Your task to perform on an android device: Open settings Image 0: 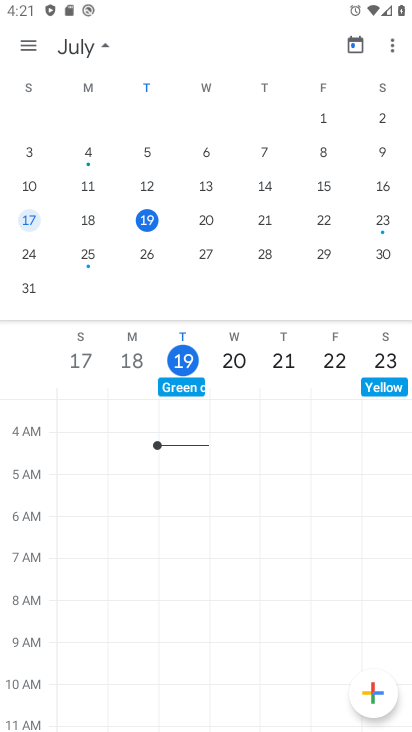
Step 0: press home button
Your task to perform on an android device: Open settings Image 1: 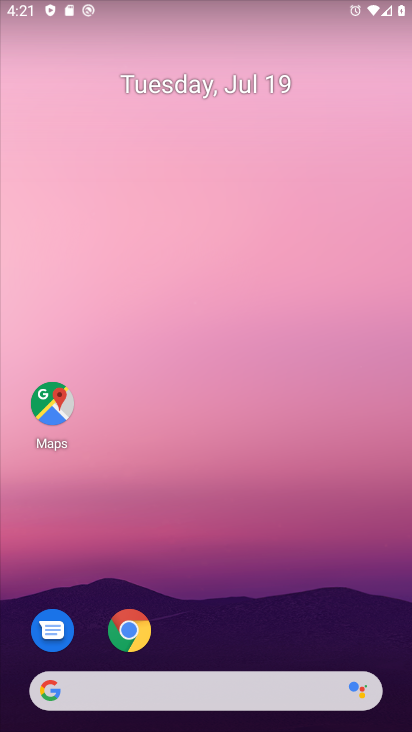
Step 1: click (223, 156)
Your task to perform on an android device: Open settings Image 2: 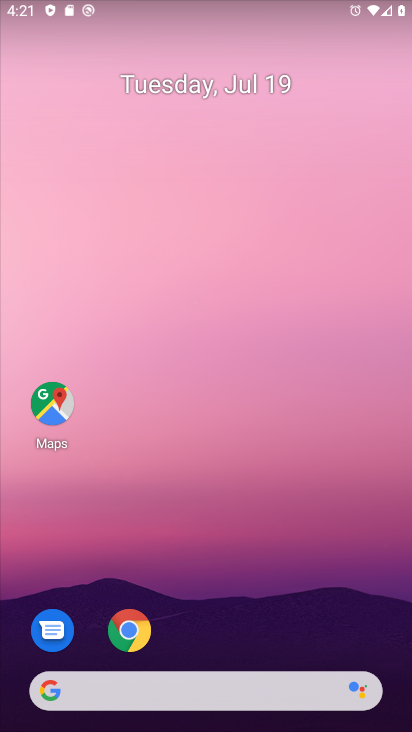
Step 2: drag from (189, 644) to (193, 219)
Your task to perform on an android device: Open settings Image 3: 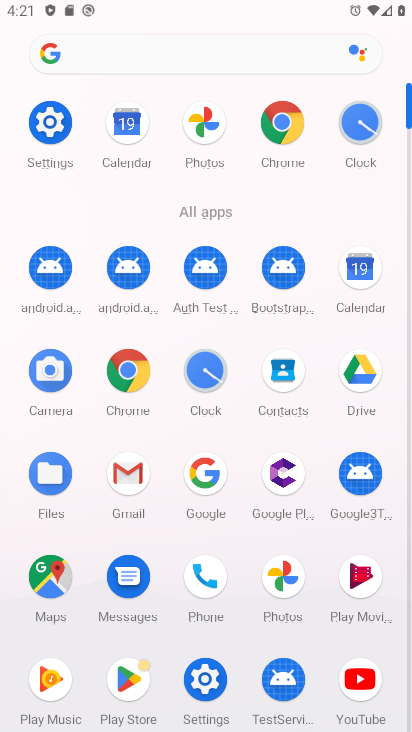
Step 3: click (33, 128)
Your task to perform on an android device: Open settings Image 4: 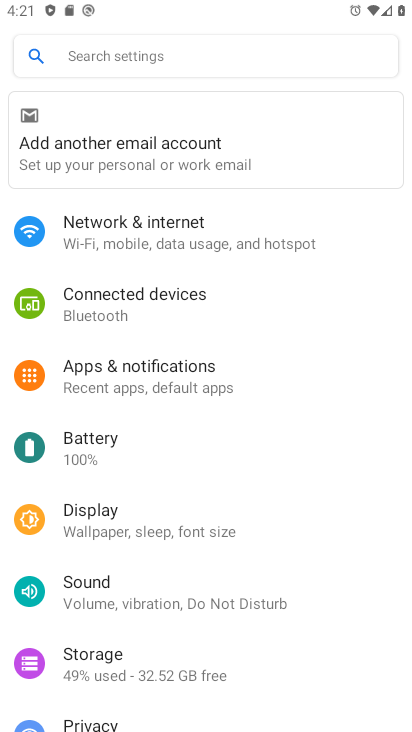
Step 4: task complete